Your task to perform on an android device: Go to Google maps Image 0: 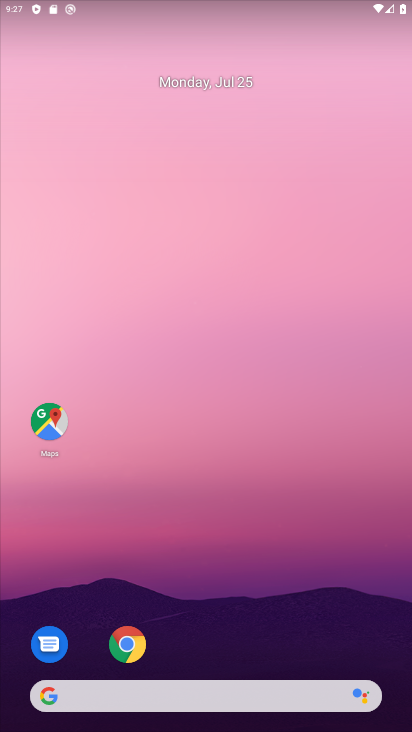
Step 0: click (42, 426)
Your task to perform on an android device: Go to Google maps Image 1: 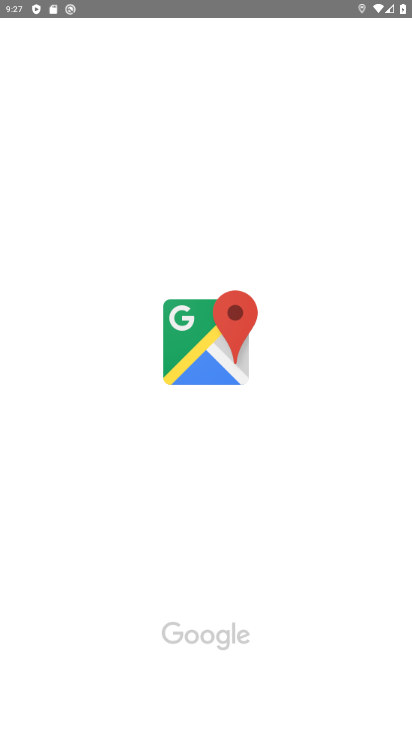
Step 1: task complete